Your task to perform on an android device: Open sound settings Image 0: 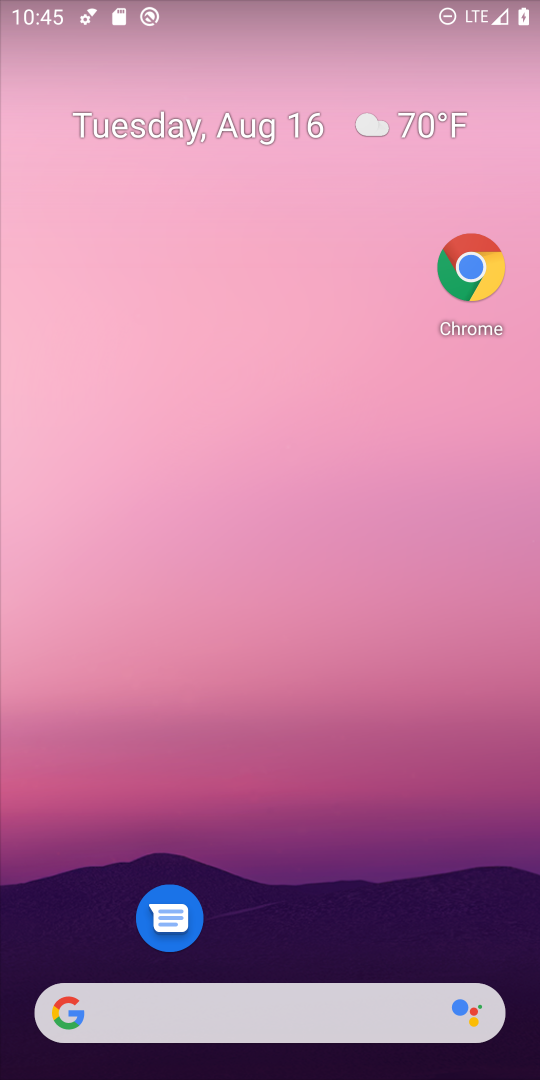
Step 0: drag from (215, 946) to (356, 463)
Your task to perform on an android device: Open sound settings Image 1: 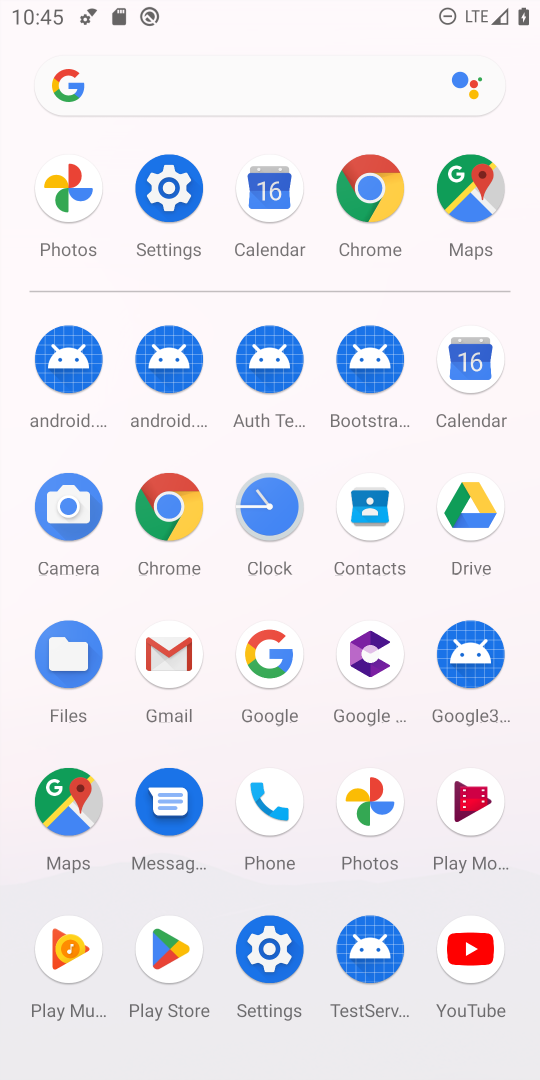
Step 1: click (159, 198)
Your task to perform on an android device: Open sound settings Image 2: 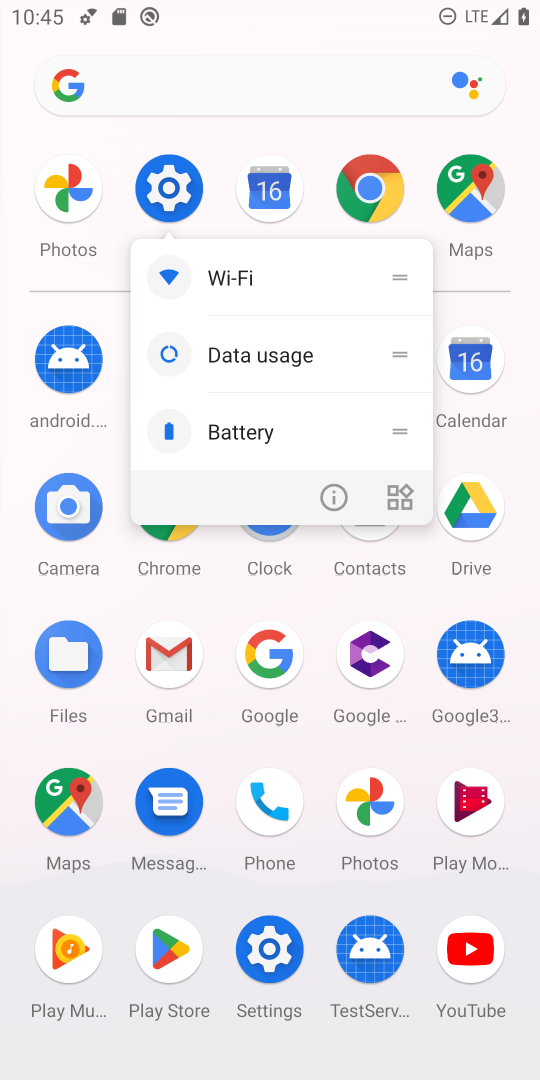
Step 2: click (180, 193)
Your task to perform on an android device: Open sound settings Image 3: 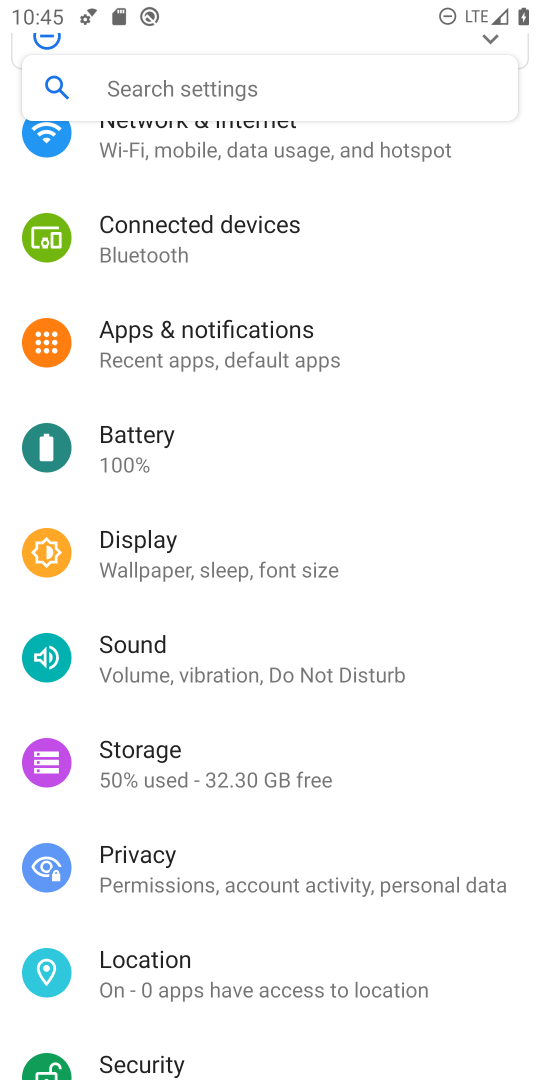
Step 3: click (211, 654)
Your task to perform on an android device: Open sound settings Image 4: 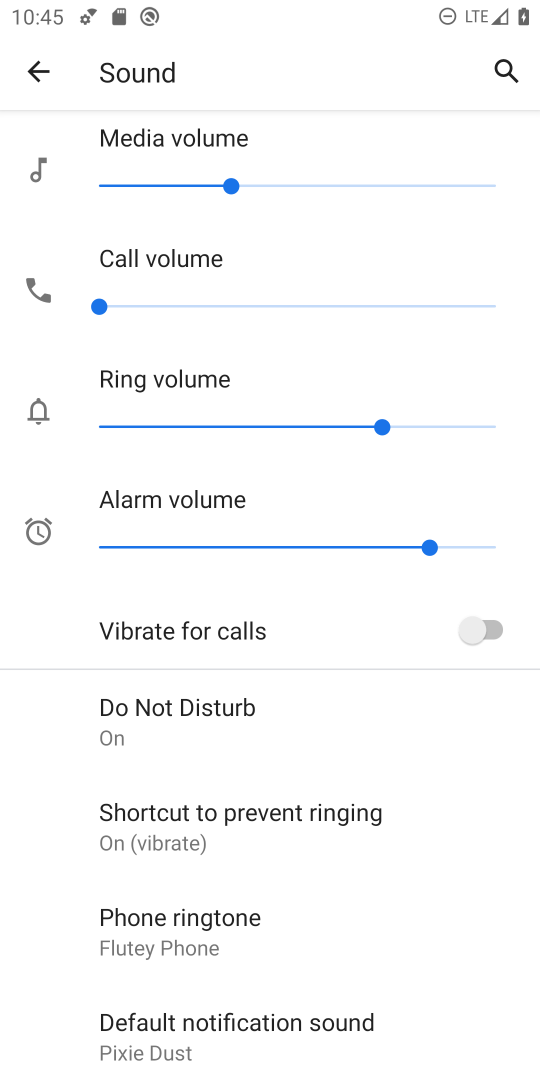
Step 4: task complete